Your task to perform on an android device: open app "Firefox Browser" Image 0: 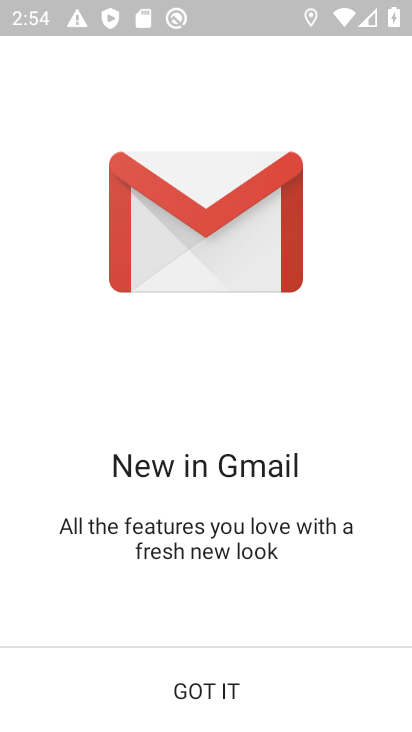
Step 0: press home button
Your task to perform on an android device: open app "Firefox Browser" Image 1: 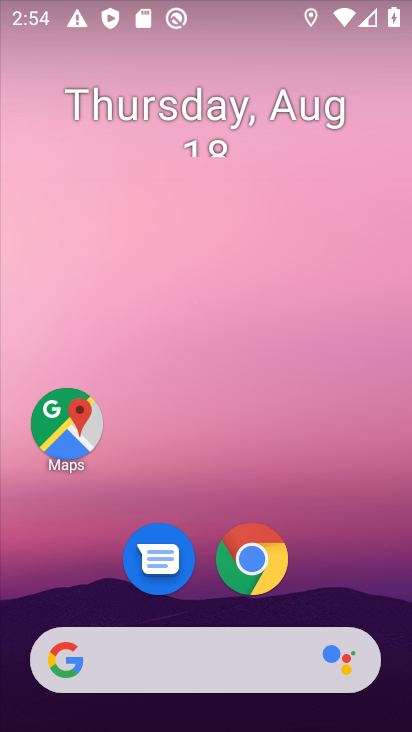
Step 1: drag from (192, 631) to (213, 0)
Your task to perform on an android device: open app "Firefox Browser" Image 2: 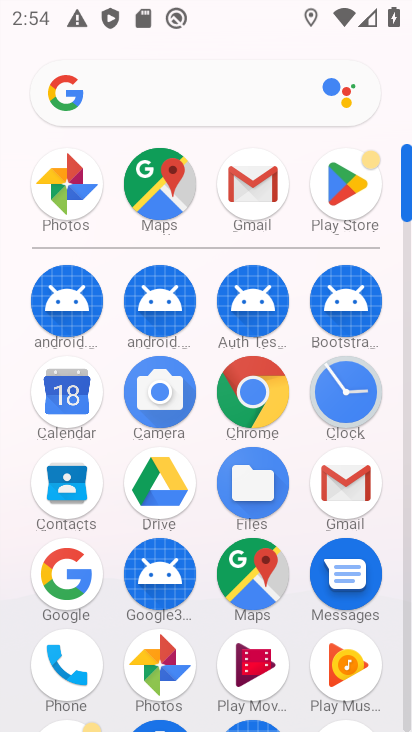
Step 2: click (331, 190)
Your task to perform on an android device: open app "Firefox Browser" Image 3: 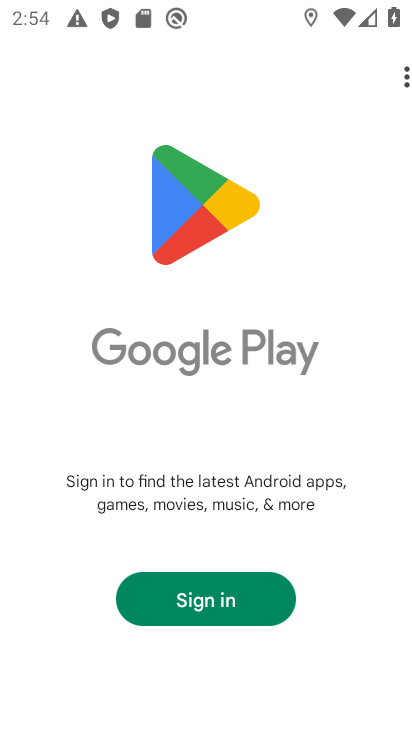
Step 3: click (205, 600)
Your task to perform on an android device: open app "Firefox Browser" Image 4: 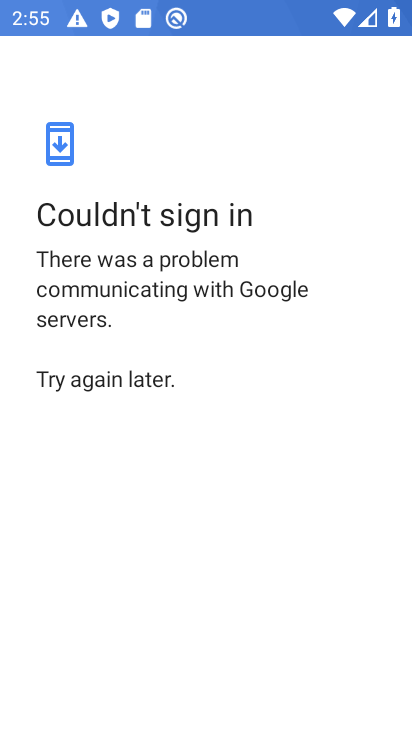
Step 4: task complete